Your task to perform on an android device: Go to ESPN.com Image 0: 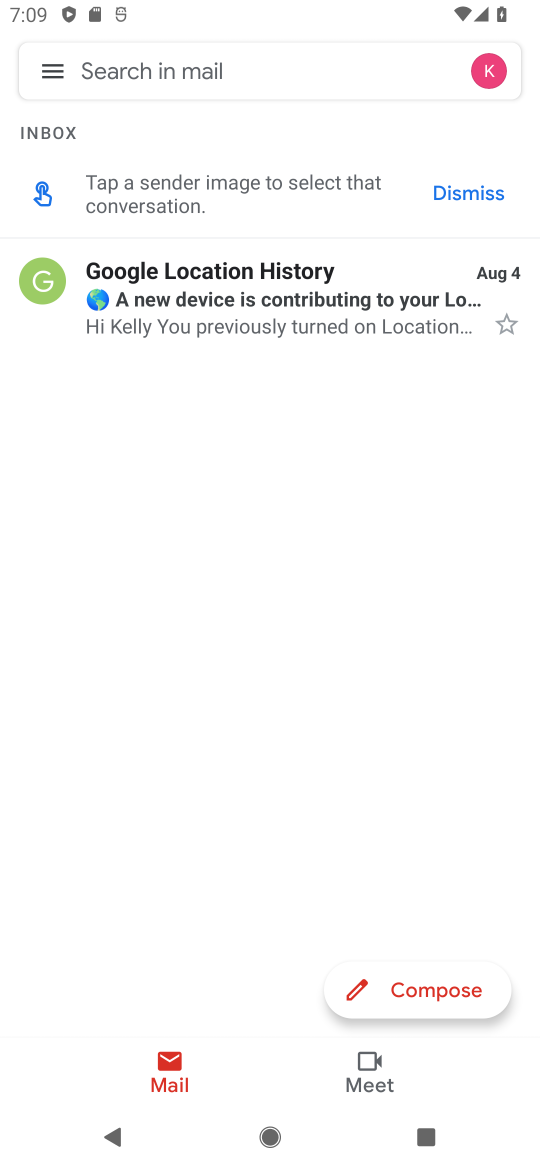
Step 0: press home button
Your task to perform on an android device: Go to ESPN.com Image 1: 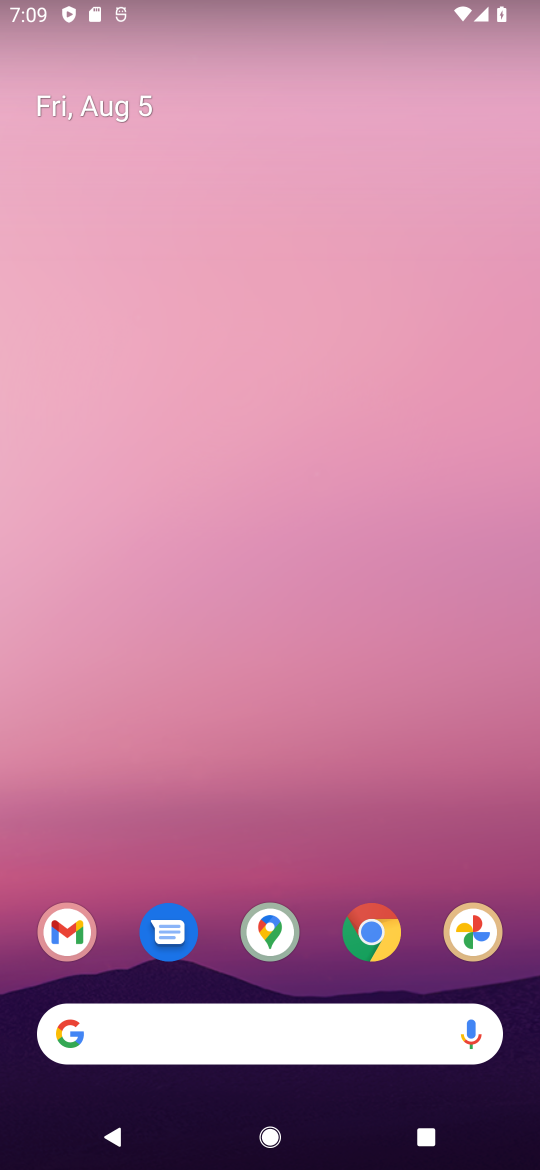
Step 1: drag from (400, 807) to (369, 223)
Your task to perform on an android device: Go to ESPN.com Image 2: 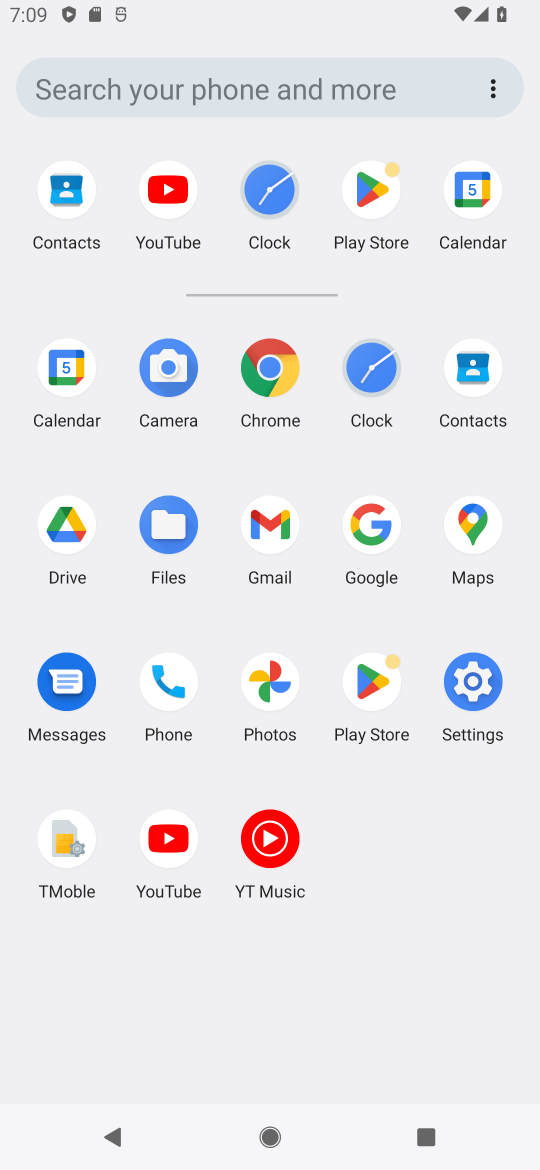
Step 2: click (268, 363)
Your task to perform on an android device: Go to ESPN.com Image 3: 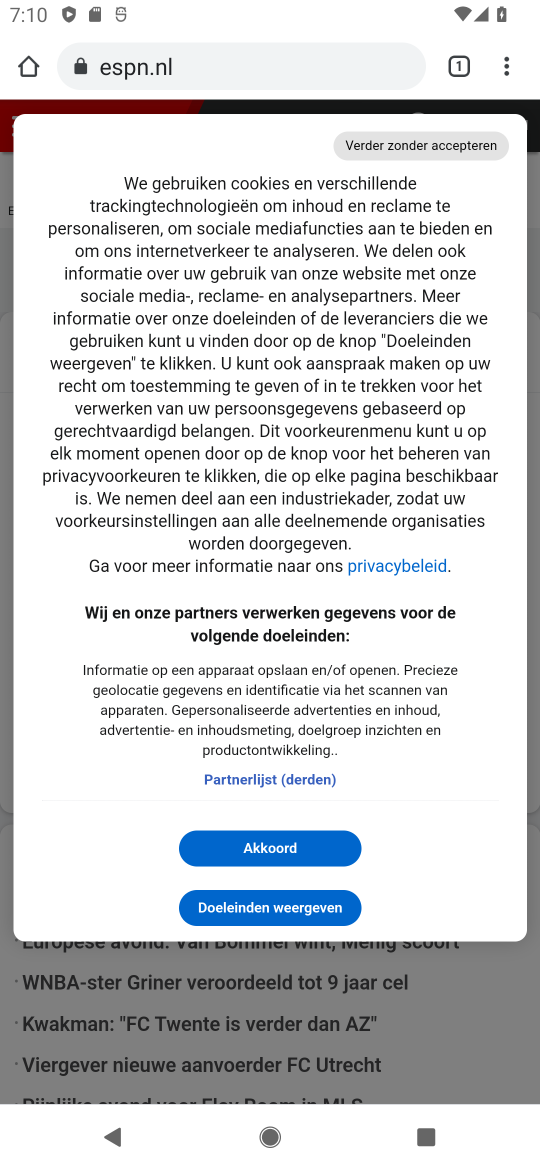
Step 3: task complete